Your task to perform on an android device: turn off picture-in-picture Image 0: 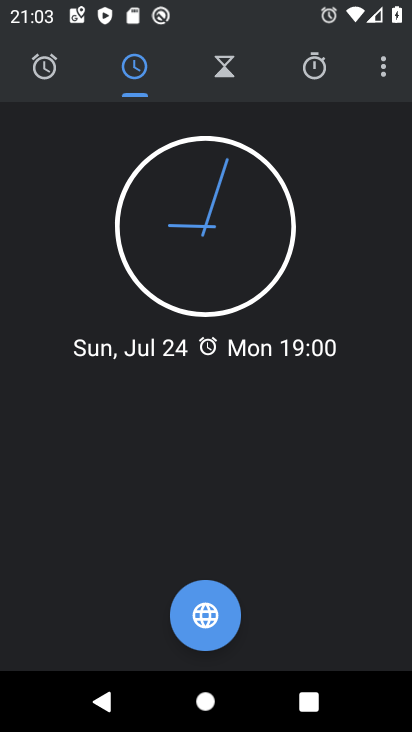
Step 0: press home button
Your task to perform on an android device: turn off picture-in-picture Image 1: 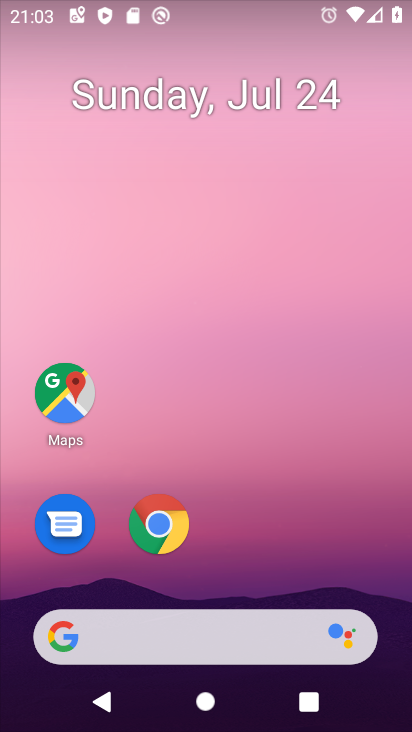
Step 1: click (171, 530)
Your task to perform on an android device: turn off picture-in-picture Image 2: 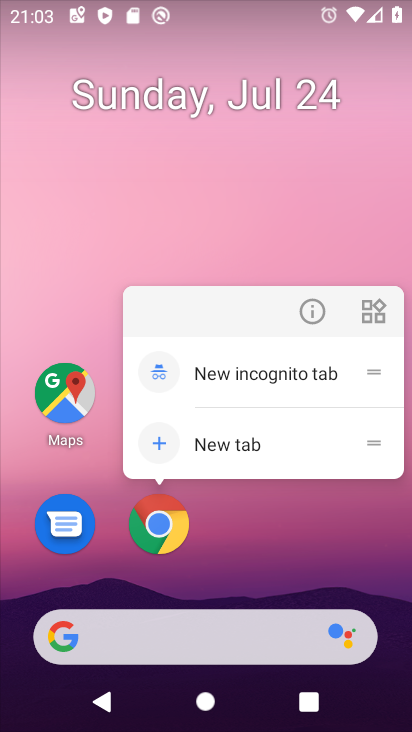
Step 2: click (311, 313)
Your task to perform on an android device: turn off picture-in-picture Image 3: 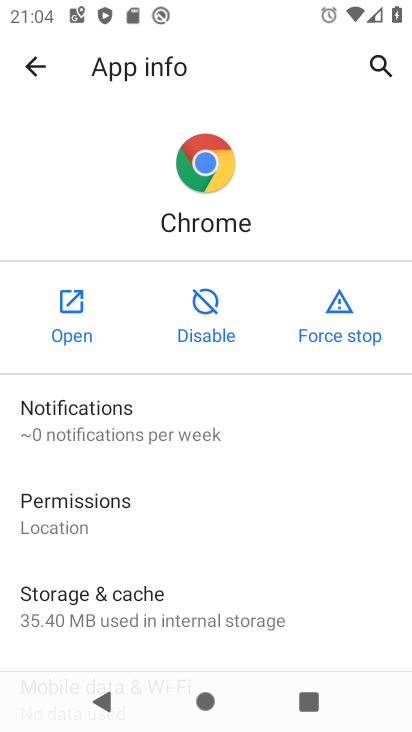
Step 3: drag from (208, 545) to (214, 169)
Your task to perform on an android device: turn off picture-in-picture Image 4: 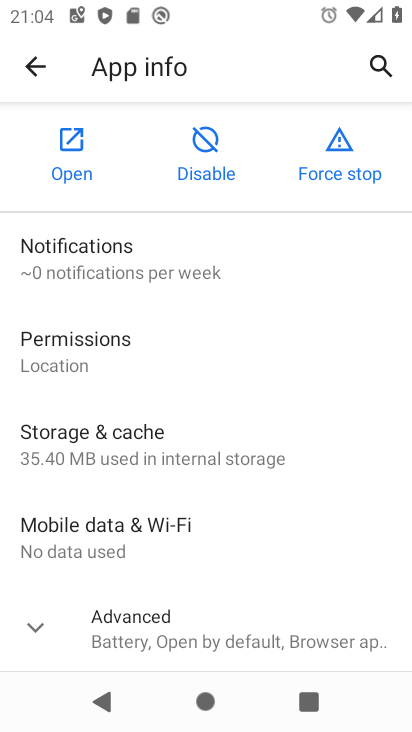
Step 4: click (37, 628)
Your task to perform on an android device: turn off picture-in-picture Image 5: 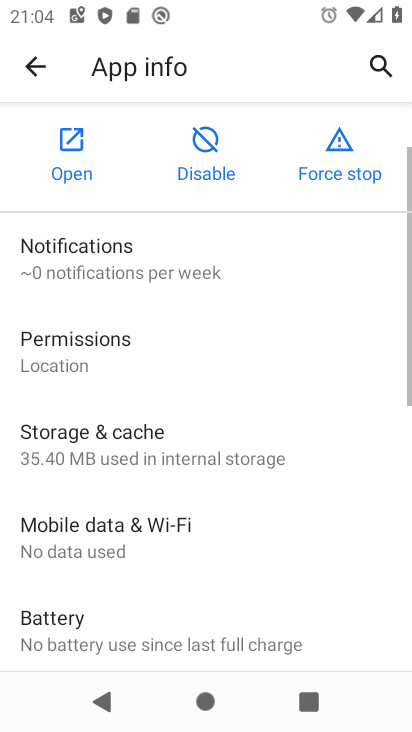
Step 5: drag from (229, 605) to (245, 195)
Your task to perform on an android device: turn off picture-in-picture Image 6: 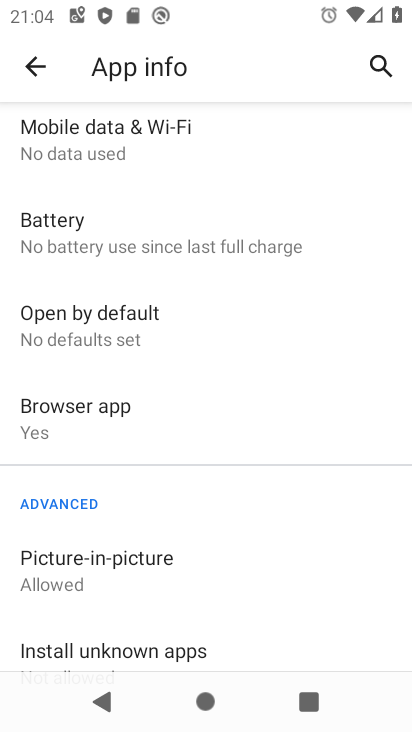
Step 6: click (140, 562)
Your task to perform on an android device: turn off picture-in-picture Image 7: 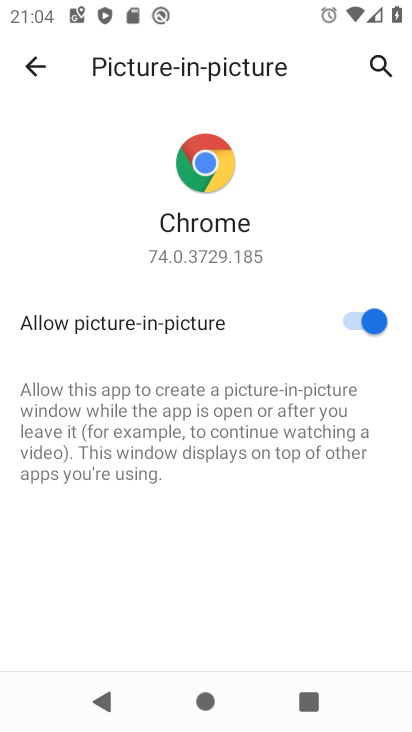
Step 7: click (362, 320)
Your task to perform on an android device: turn off picture-in-picture Image 8: 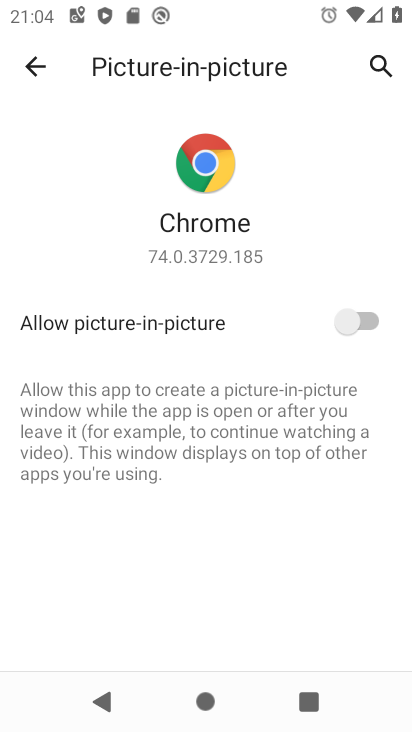
Step 8: task complete